Your task to perform on an android device: turn on data saver in the chrome app Image 0: 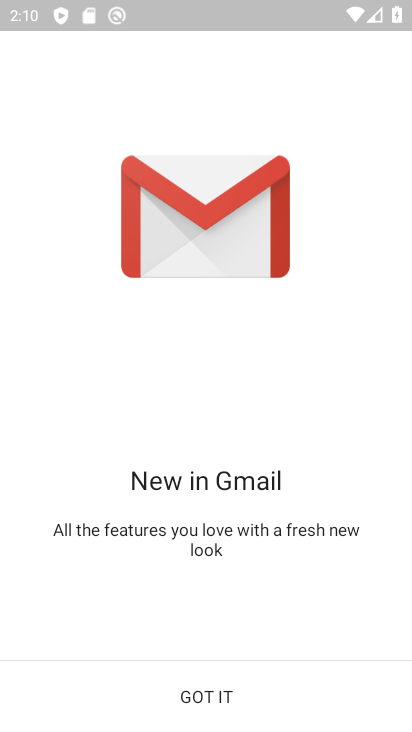
Step 0: press home button
Your task to perform on an android device: turn on data saver in the chrome app Image 1: 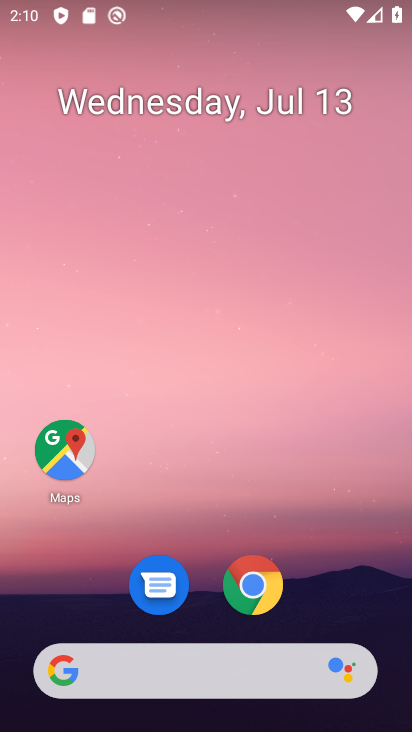
Step 1: click (257, 592)
Your task to perform on an android device: turn on data saver in the chrome app Image 2: 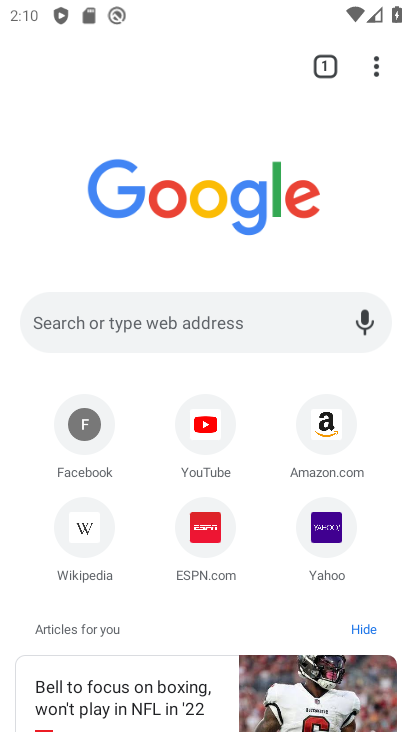
Step 2: drag from (375, 71) to (198, 560)
Your task to perform on an android device: turn on data saver in the chrome app Image 3: 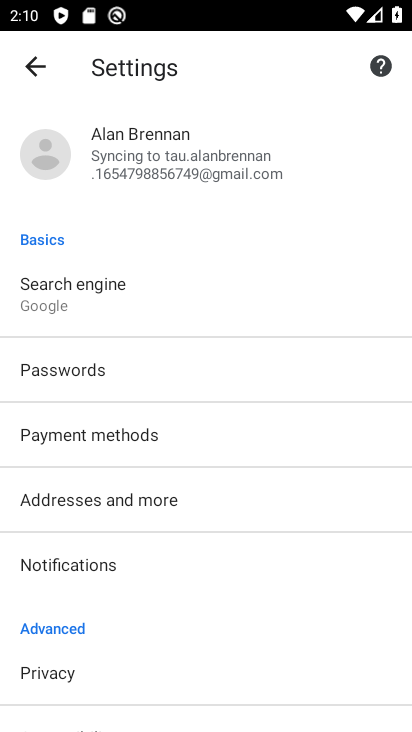
Step 3: drag from (153, 625) to (261, 286)
Your task to perform on an android device: turn on data saver in the chrome app Image 4: 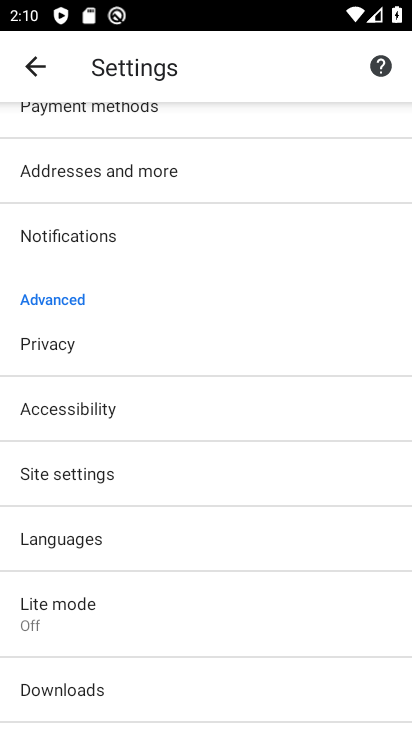
Step 4: click (82, 623)
Your task to perform on an android device: turn on data saver in the chrome app Image 5: 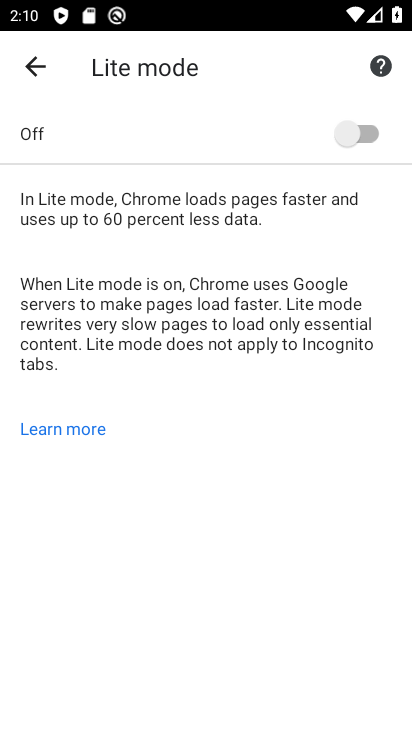
Step 5: click (368, 133)
Your task to perform on an android device: turn on data saver in the chrome app Image 6: 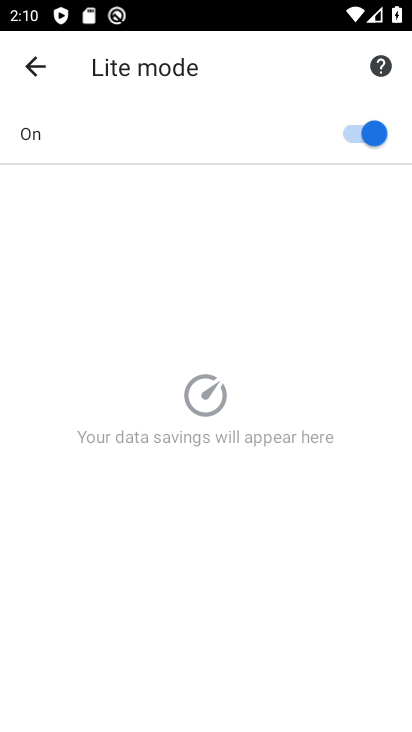
Step 6: task complete